Your task to perform on an android device: open a new tab in the chrome app Image 0: 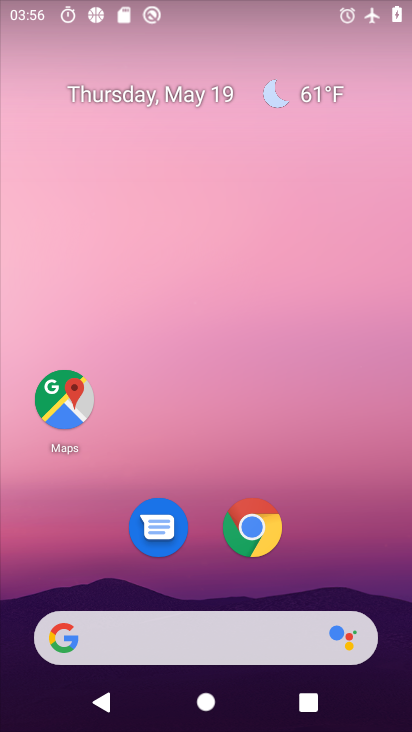
Step 0: click (269, 526)
Your task to perform on an android device: open a new tab in the chrome app Image 1: 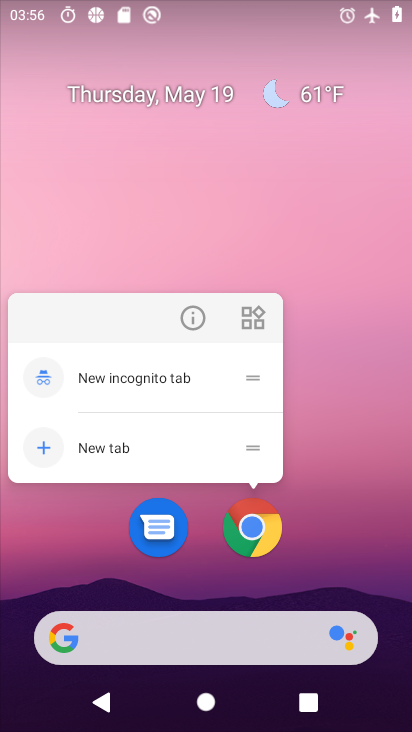
Step 1: click (250, 530)
Your task to perform on an android device: open a new tab in the chrome app Image 2: 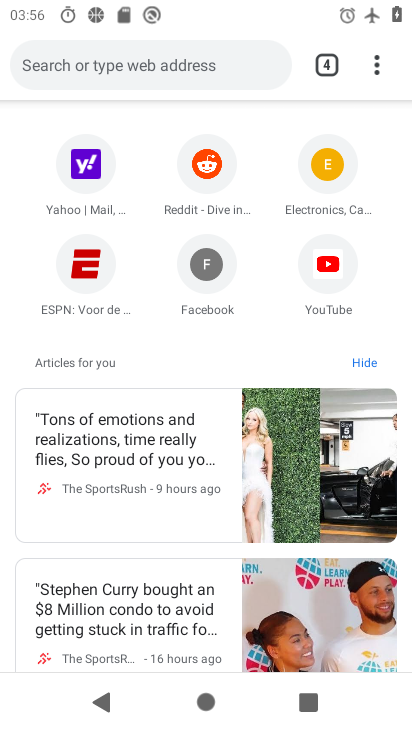
Step 2: task complete